Your task to perform on an android device: check battery use Image 0: 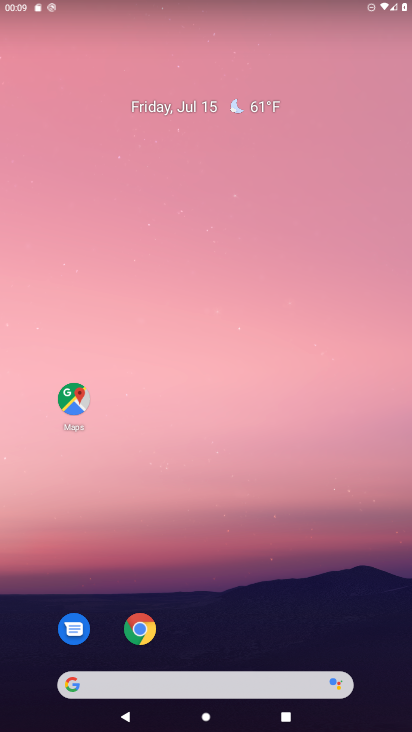
Step 0: drag from (236, 12) to (231, 503)
Your task to perform on an android device: check battery use Image 1: 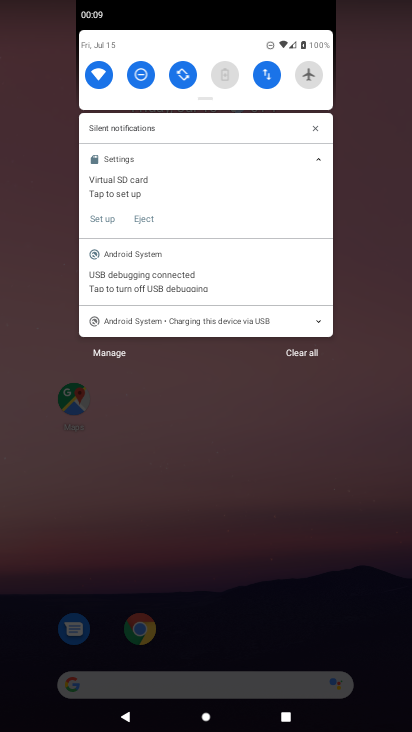
Step 1: click (219, 75)
Your task to perform on an android device: check battery use Image 2: 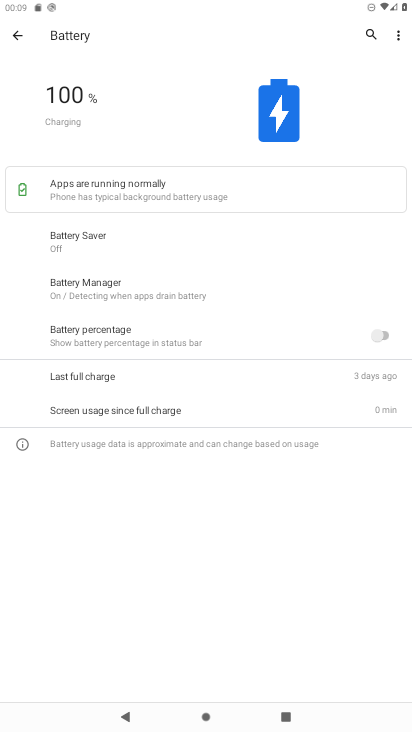
Step 2: click (402, 31)
Your task to perform on an android device: check battery use Image 3: 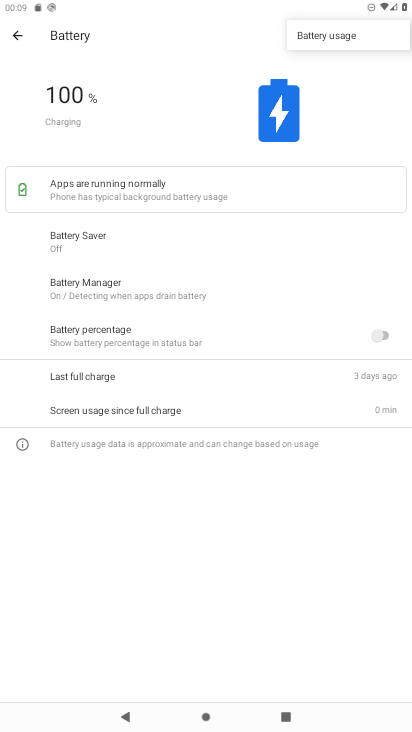
Step 3: click (355, 42)
Your task to perform on an android device: check battery use Image 4: 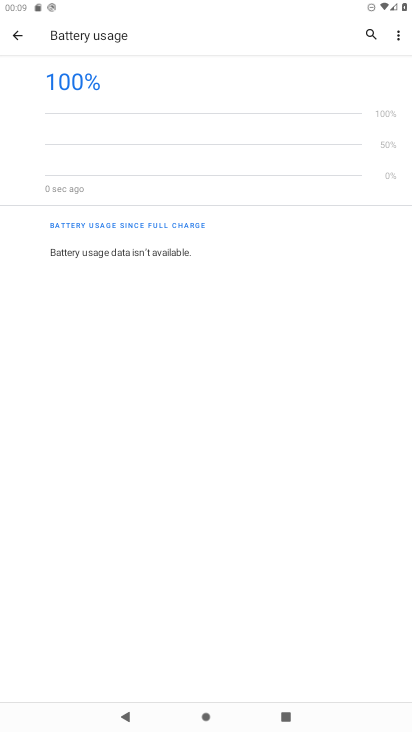
Step 4: task complete